Your task to perform on an android device: open app "Google Maps" Image 0: 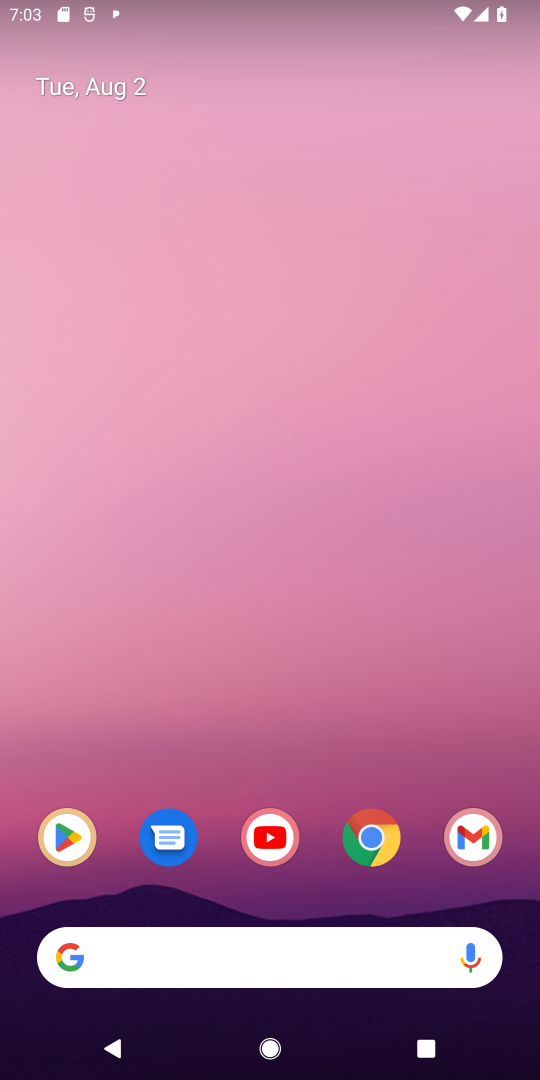
Step 0: click (53, 832)
Your task to perform on an android device: open app "Google Maps" Image 1: 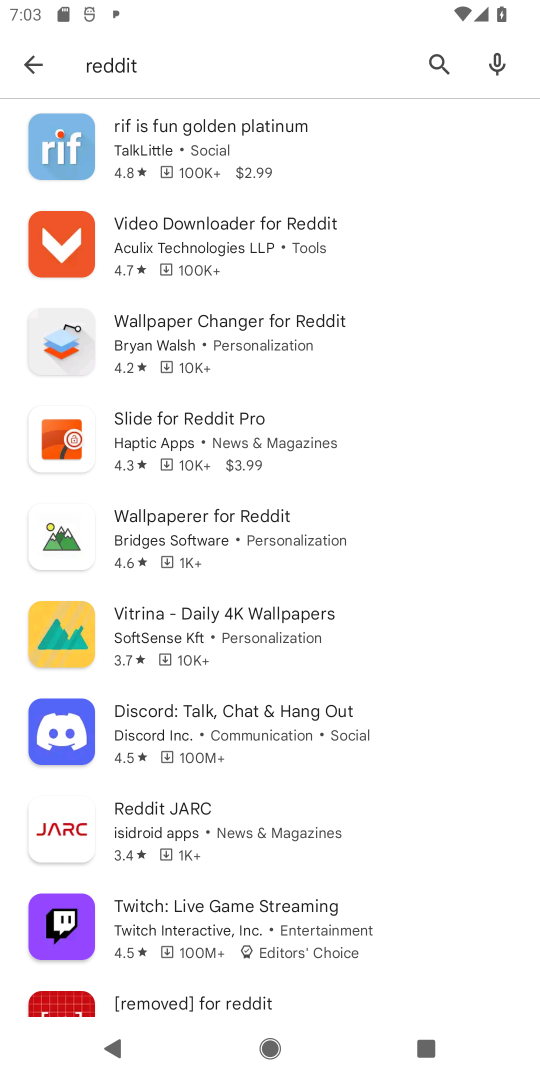
Step 1: click (427, 65)
Your task to perform on an android device: open app "Google Maps" Image 2: 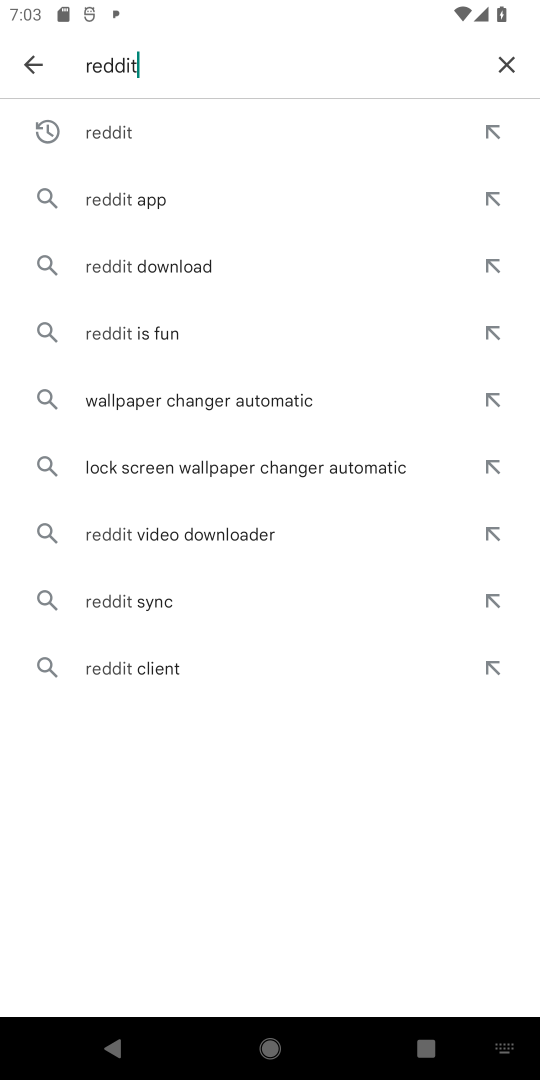
Step 2: click (502, 71)
Your task to perform on an android device: open app "Google Maps" Image 3: 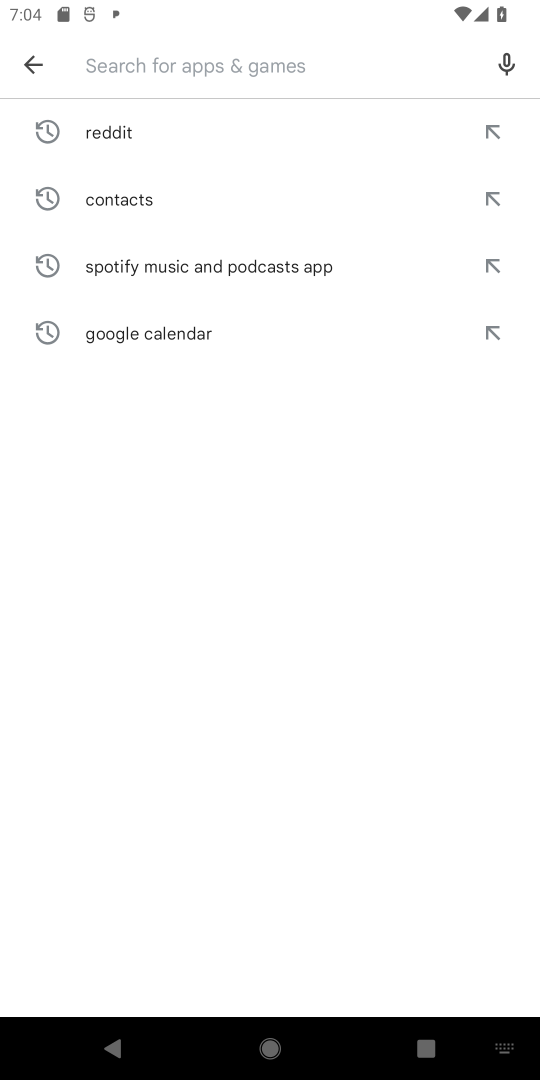
Step 3: type "Google Maps"
Your task to perform on an android device: open app "Google Maps" Image 4: 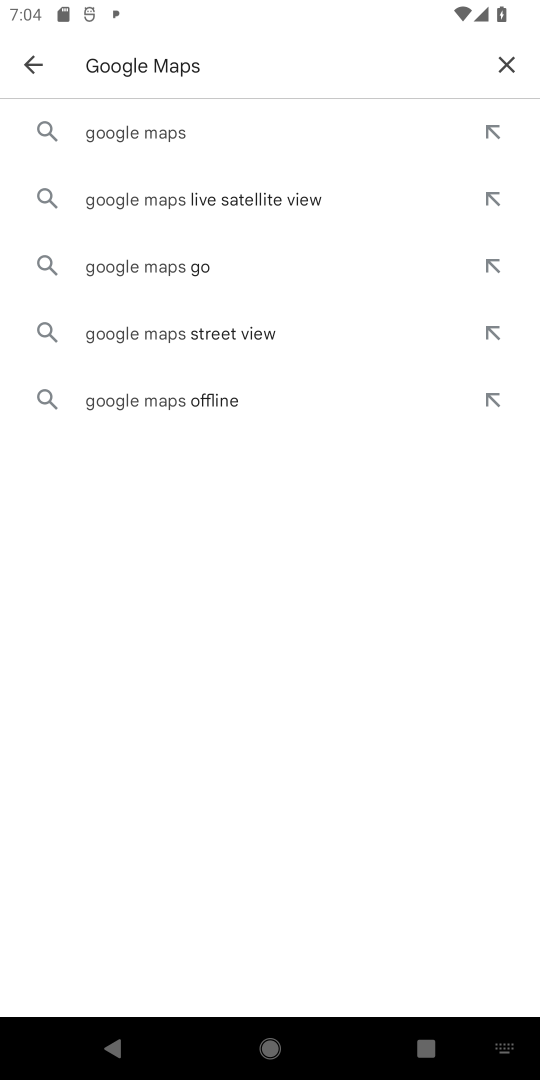
Step 4: click (160, 133)
Your task to perform on an android device: open app "Google Maps" Image 5: 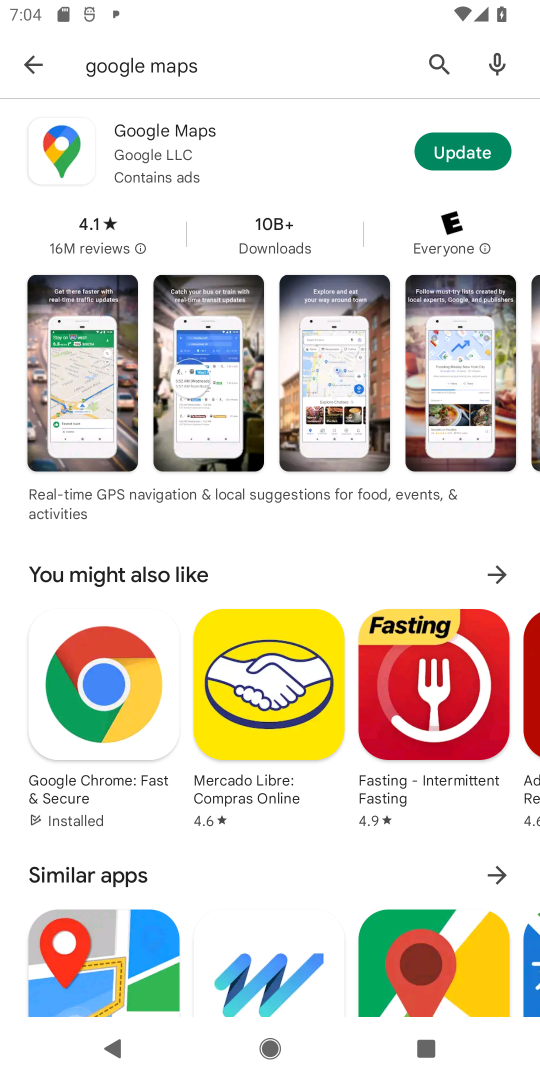
Step 5: click (123, 155)
Your task to perform on an android device: open app "Google Maps" Image 6: 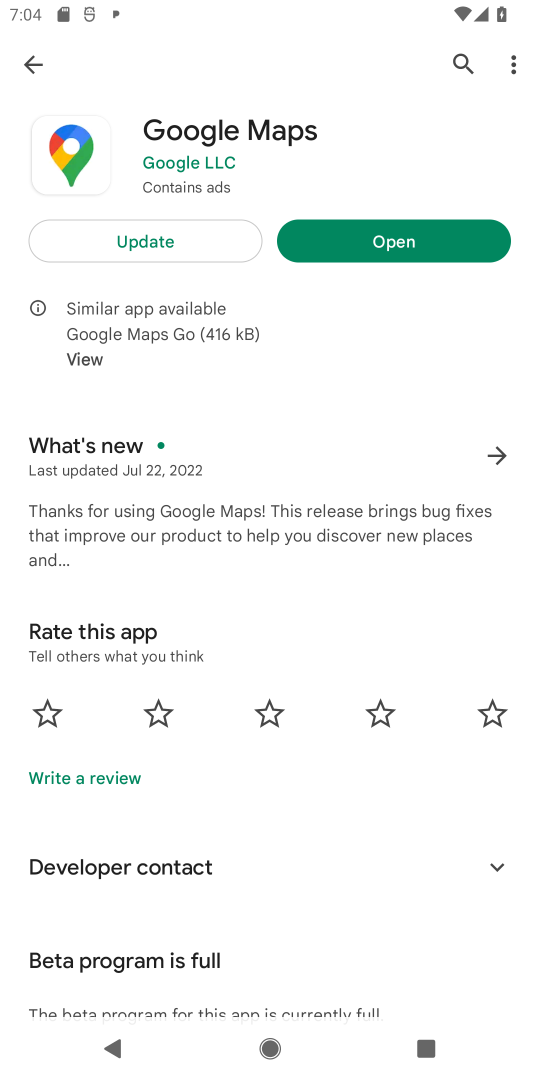
Step 6: click (341, 244)
Your task to perform on an android device: open app "Google Maps" Image 7: 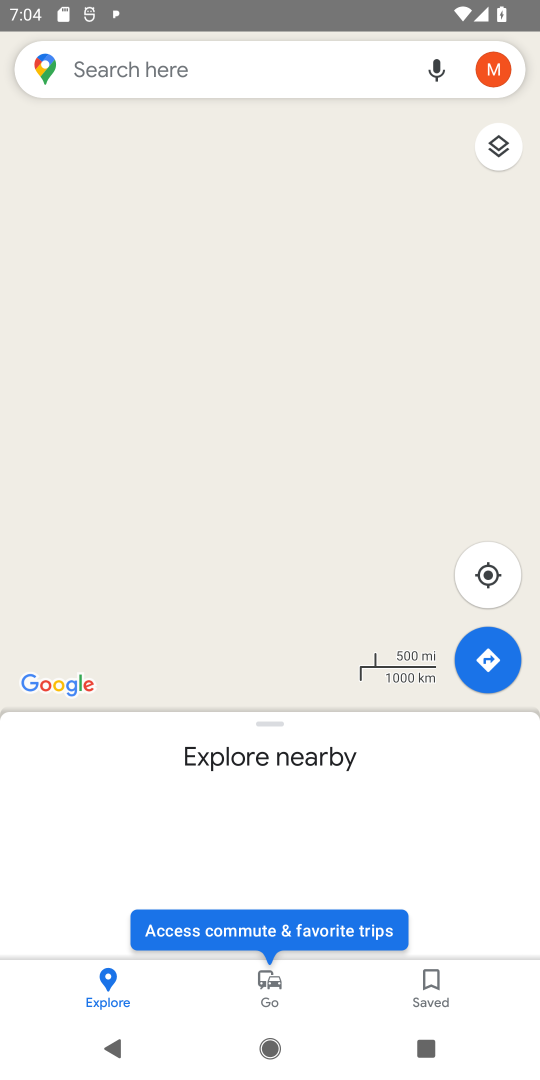
Step 7: task complete